Your task to perform on an android device: When is my next meeting? Image 0: 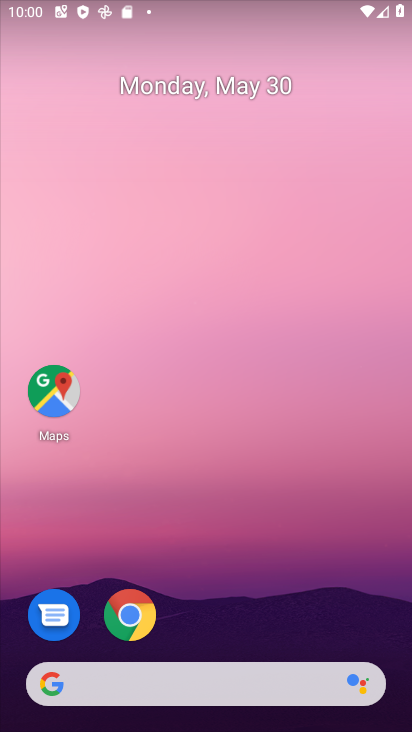
Step 0: drag from (290, 594) to (249, 68)
Your task to perform on an android device: When is my next meeting? Image 1: 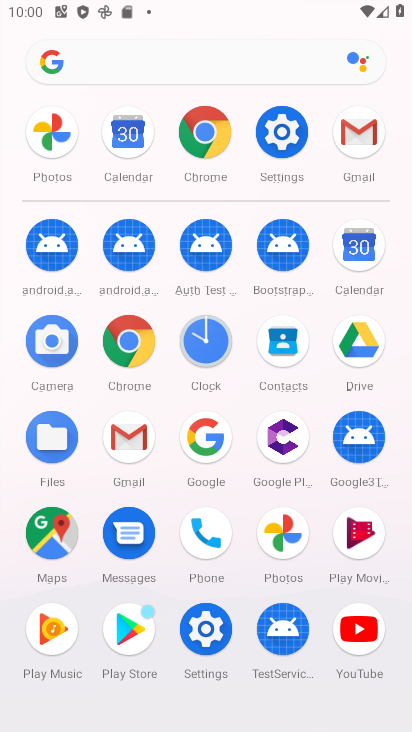
Step 1: click (277, 147)
Your task to perform on an android device: When is my next meeting? Image 2: 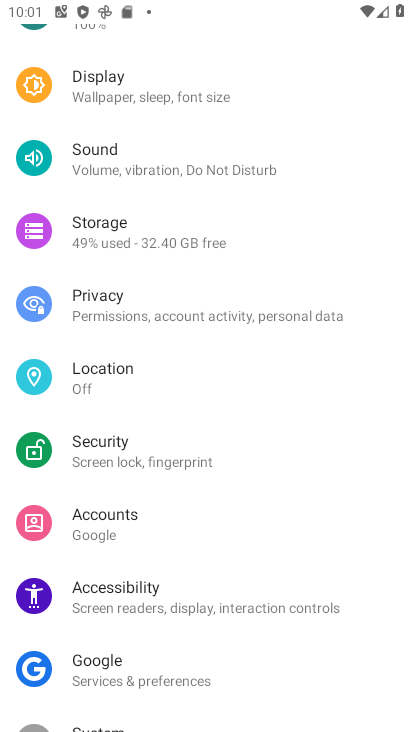
Step 2: press home button
Your task to perform on an android device: When is my next meeting? Image 3: 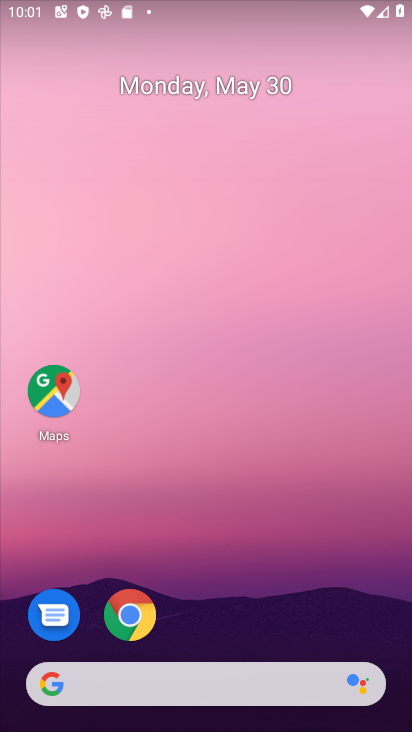
Step 3: click (183, 79)
Your task to perform on an android device: When is my next meeting? Image 4: 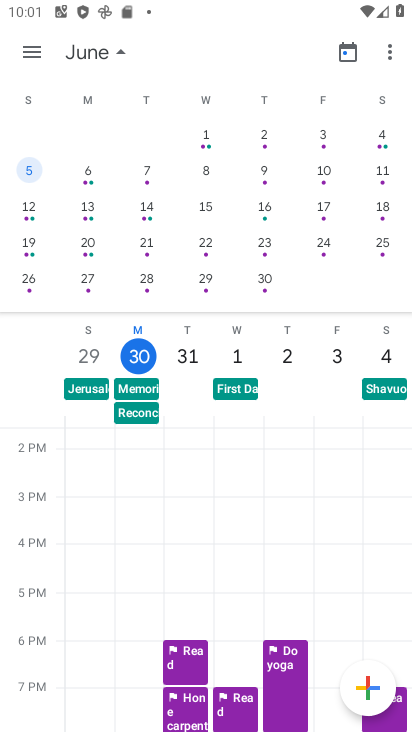
Step 4: drag from (57, 213) to (397, 214)
Your task to perform on an android device: When is my next meeting? Image 5: 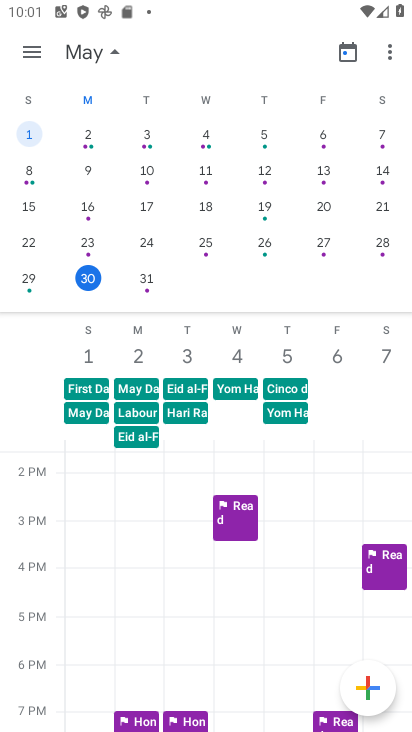
Step 5: click (25, 282)
Your task to perform on an android device: When is my next meeting? Image 6: 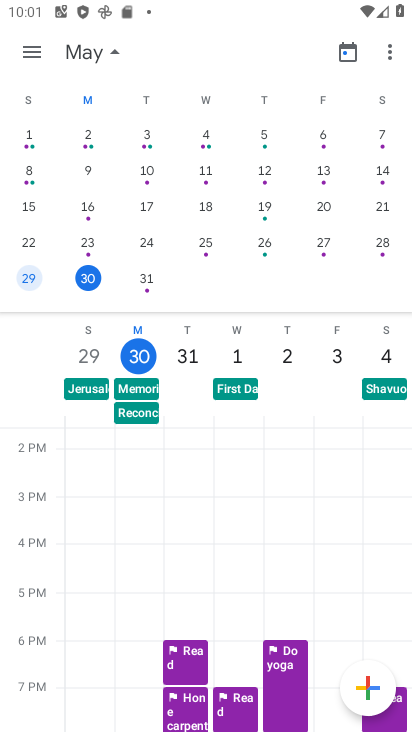
Step 6: task complete